Your task to perform on an android device: Open Google Chrome and click the shortcut for Amazon.com Image 0: 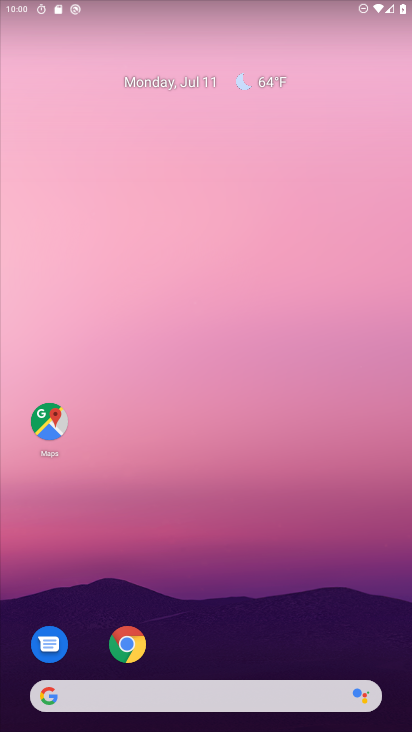
Step 0: drag from (296, 639) to (262, 131)
Your task to perform on an android device: Open Google Chrome and click the shortcut for Amazon.com Image 1: 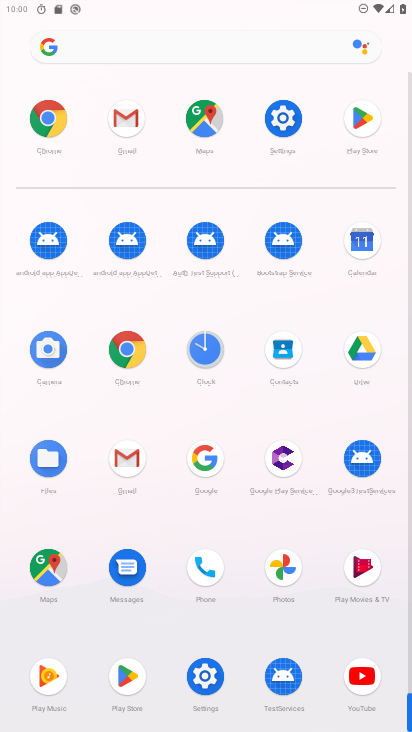
Step 1: click (134, 351)
Your task to perform on an android device: Open Google Chrome and click the shortcut for Amazon.com Image 2: 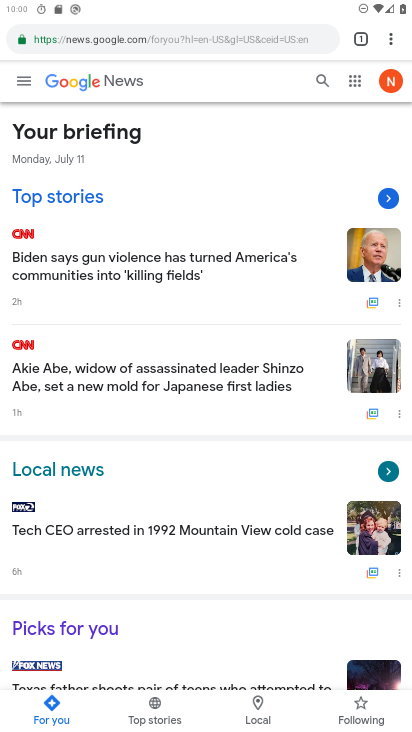
Step 2: drag from (393, 31) to (263, 122)
Your task to perform on an android device: Open Google Chrome and click the shortcut for Amazon.com Image 3: 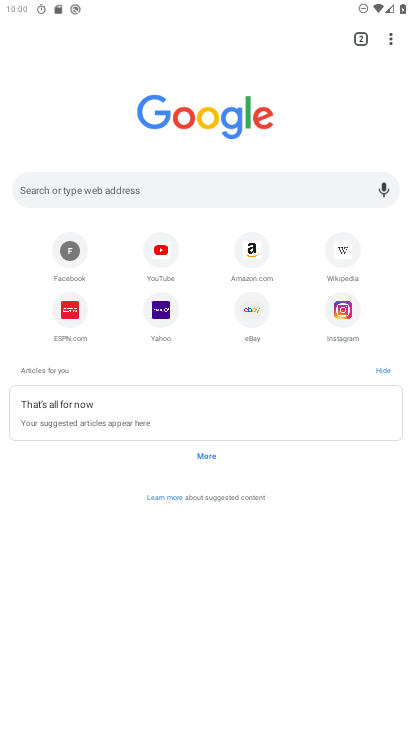
Step 3: click (254, 244)
Your task to perform on an android device: Open Google Chrome and click the shortcut for Amazon.com Image 4: 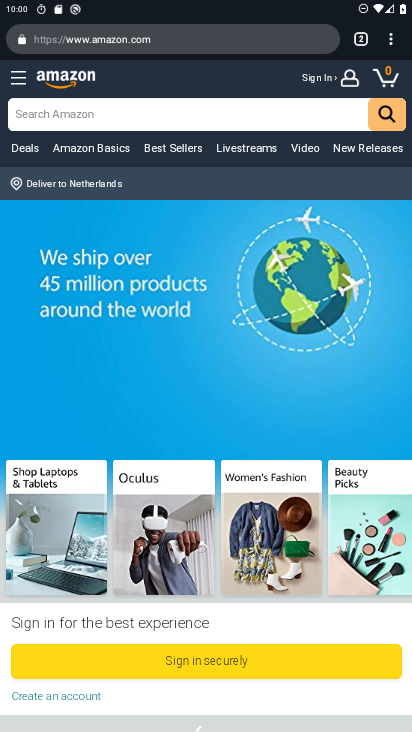
Step 4: task complete